Your task to perform on an android device: Open battery settings Image 0: 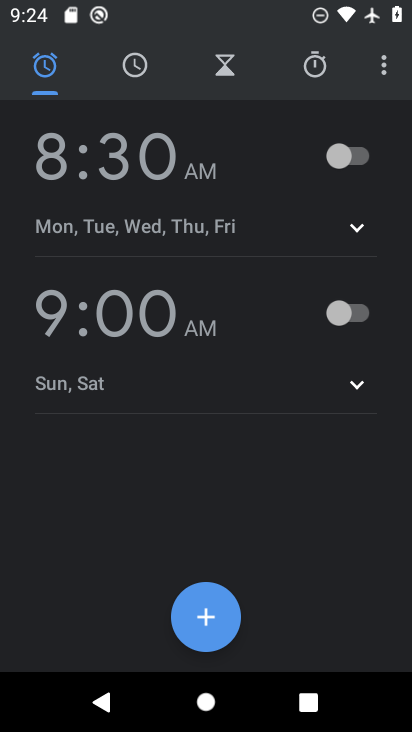
Step 0: press home button
Your task to perform on an android device: Open battery settings Image 1: 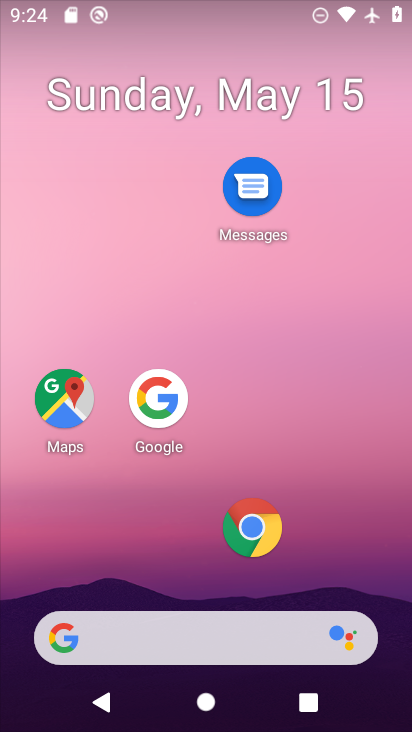
Step 1: drag from (146, 641) to (306, 104)
Your task to perform on an android device: Open battery settings Image 2: 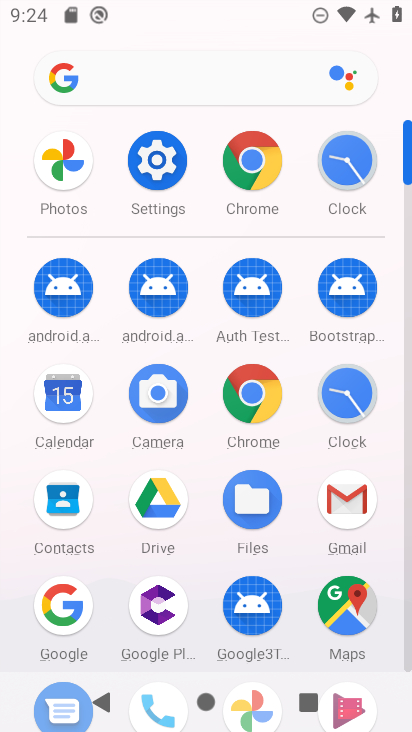
Step 2: click (155, 178)
Your task to perform on an android device: Open battery settings Image 3: 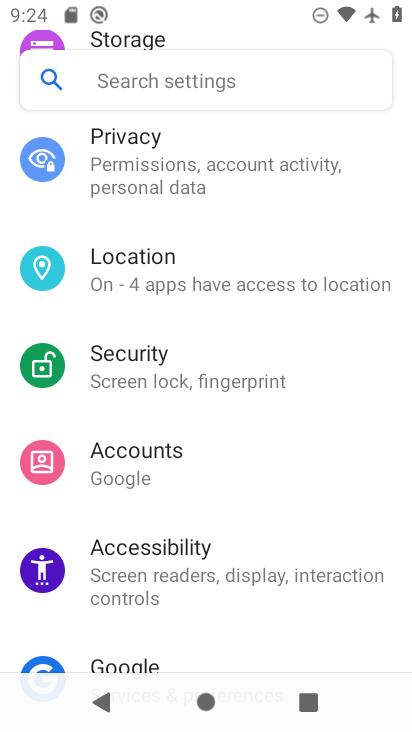
Step 3: drag from (305, 132) to (291, 601)
Your task to perform on an android device: Open battery settings Image 4: 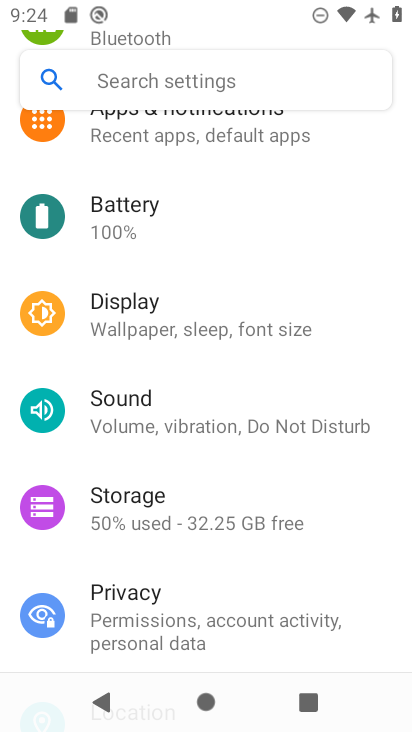
Step 4: click (113, 217)
Your task to perform on an android device: Open battery settings Image 5: 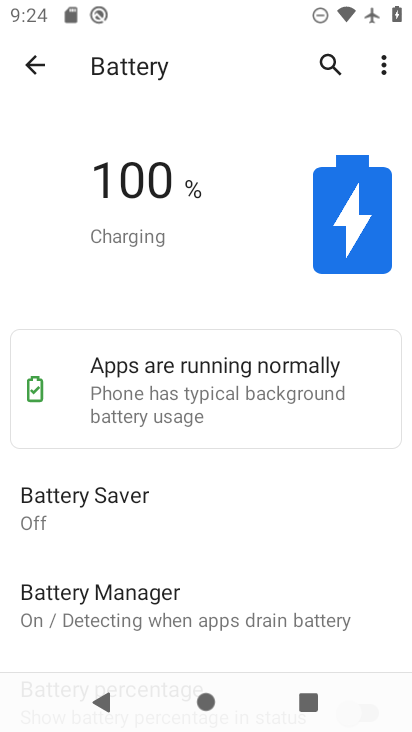
Step 5: task complete